Your task to perform on an android device: delete the emails in spam in the gmail app Image 0: 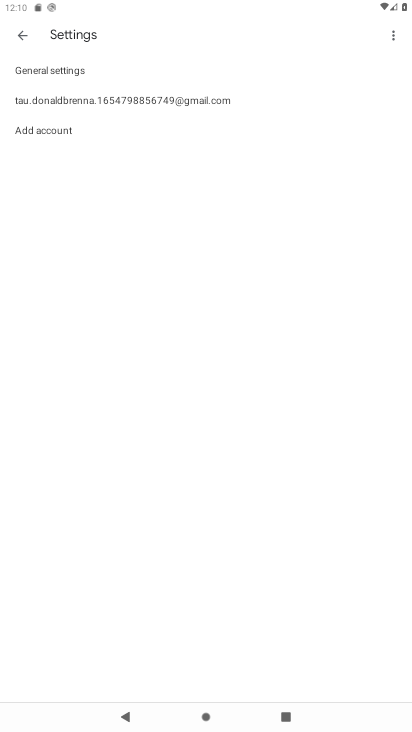
Step 0: press home button
Your task to perform on an android device: delete the emails in spam in the gmail app Image 1: 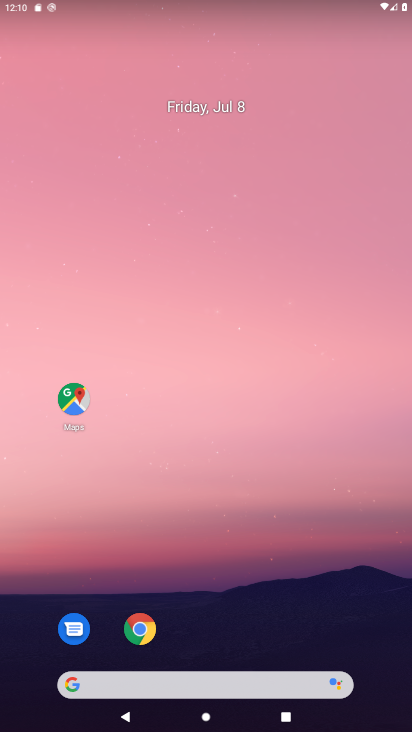
Step 1: drag from (239, 631) to (237, 154)
Your task to perform on an android device: delete the emails in spam in the gmail app Image 2: 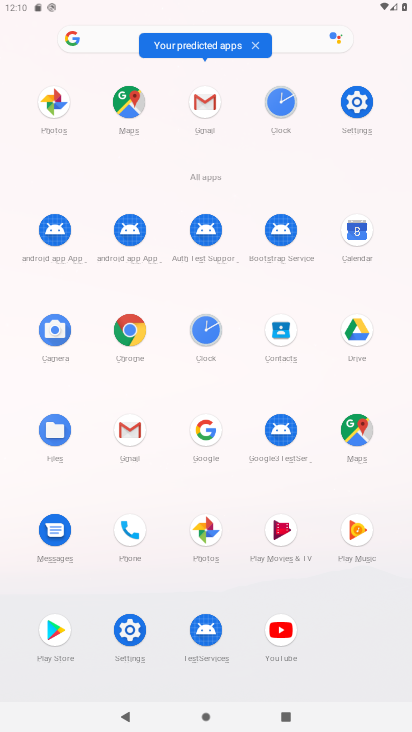
Step 2: click (207, 94)
Your task to perform on an android device: delete the emails in spam in the gmail app Image 3: 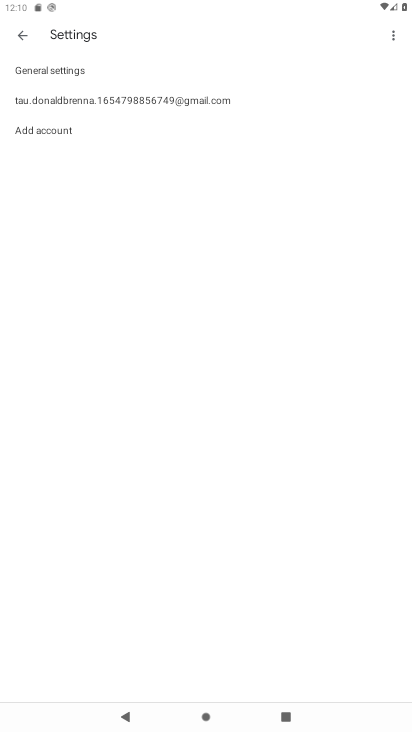
Step 3: click (27, 37)
Your task to perform on an android device: delete the emails in spam in the gmail app Image 4: 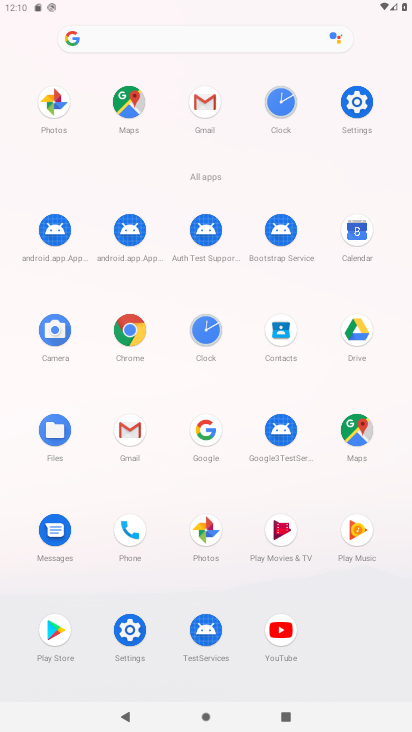
Step 4: click (197, 96)
Your task to perform on an android device: delete the emails in spam in the gmail app Image 5: 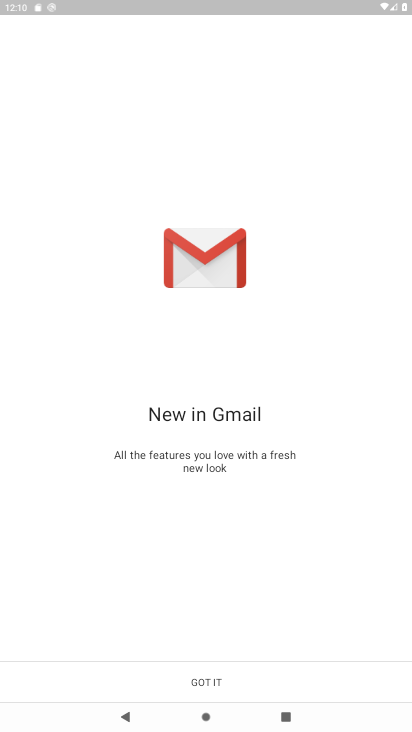
Step 5: click (313, 679)
Your task to perform on an android device: delete the emails in spam in the gmail app Image 6: 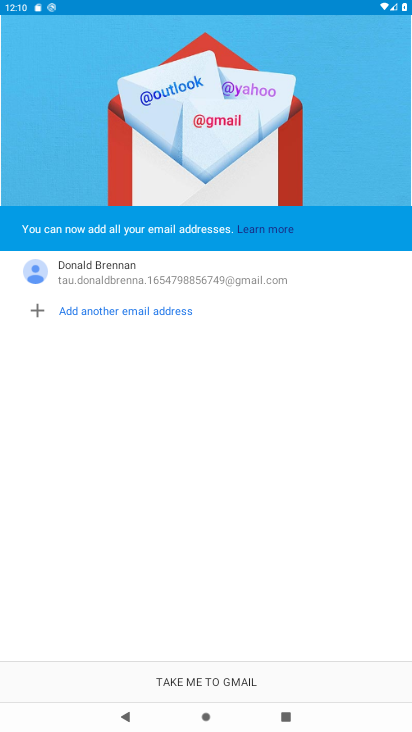
Step 6: click (313, 679)
Your task to perform on an android device: delete the emails in spam in the gmail app Image 7: 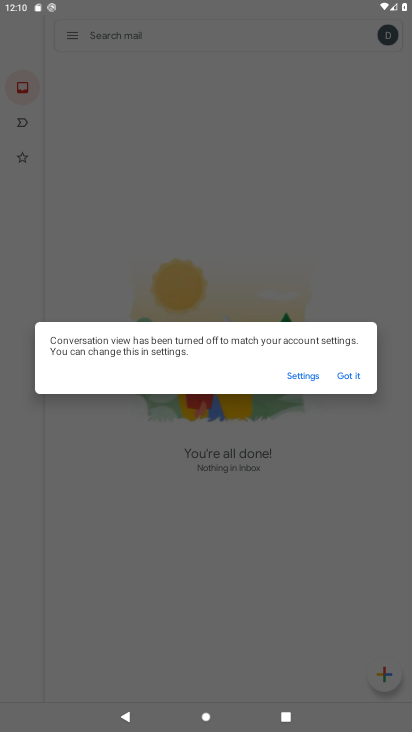
Step 7: click (337, 378)
Your task to perform on an android device: delete the emails in spam in the gmail app Image 8: 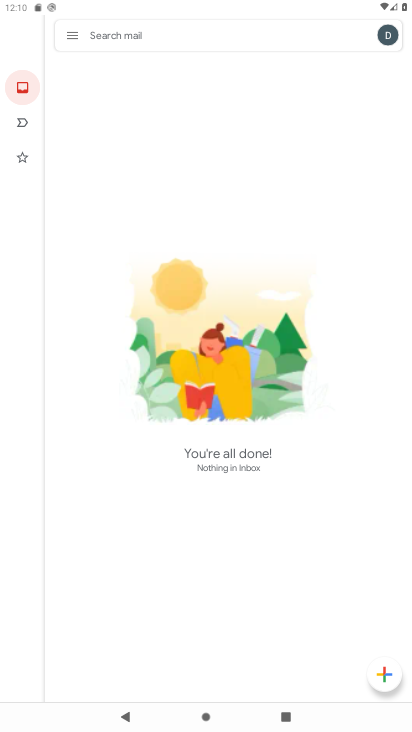
Step 8: click (71, 42)
Your task to perform on an android device: delete the emails in spam in the gmail app Image 9: 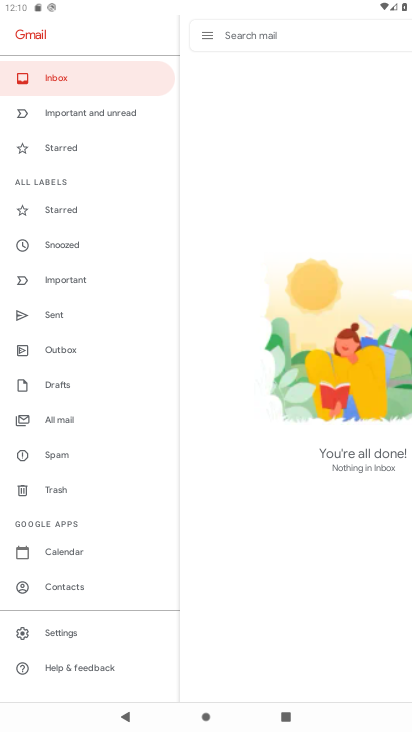
Step 9: click (54, 446)
Your task to perform on an android device: delete the emails in spam in the gmail app Image 10: 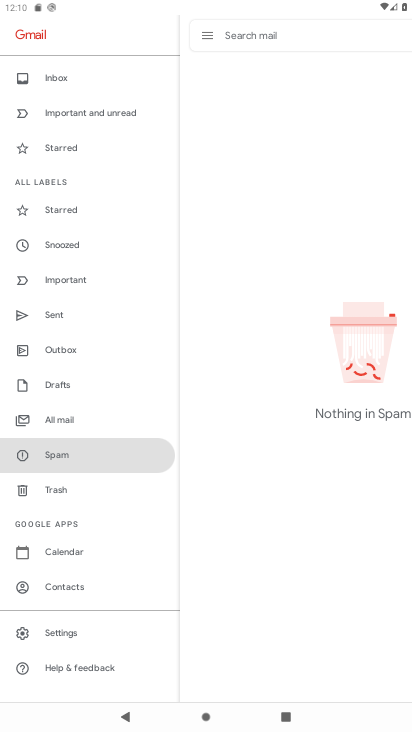
Step 10: task complete